Your task to perform on an android device: change notification settings in the gmail app Image 0: 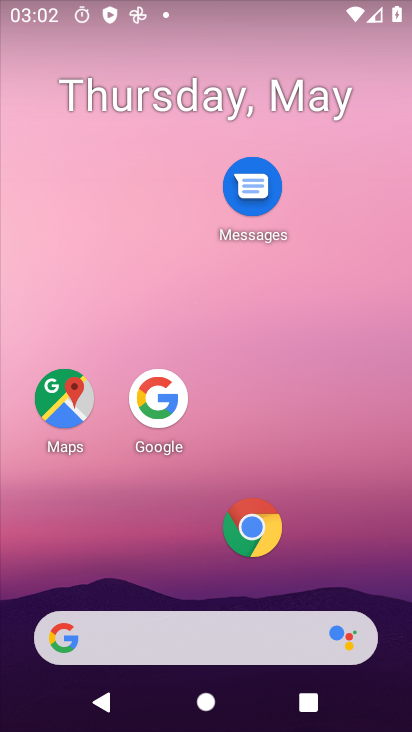
Step 0: drag from (178, 579) to (222, 202)
Your task to perform on an android device: change notification settings in the gmail app Image 1: 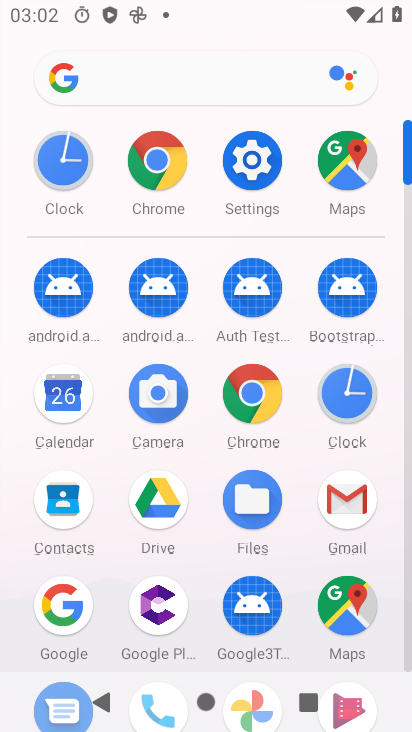
Step 1: click (341, 479)
Your task to perform on an android device: change notification settings in the gmail app Image 2: 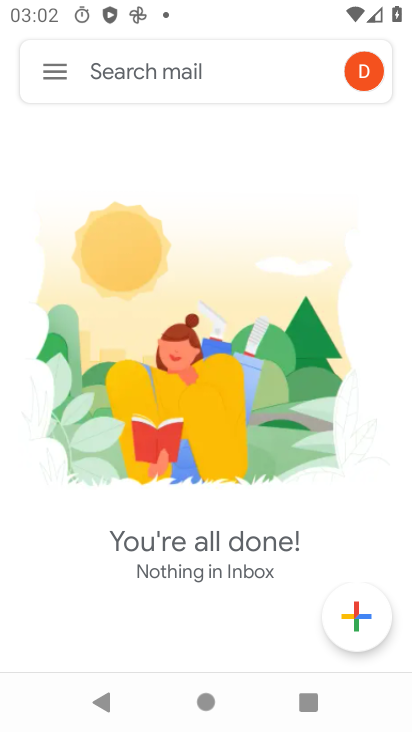
Step 2: drag from (233, 618) to (267, 359)
Your task to perform on an android device: change notification settings in the gmail app Image 3: 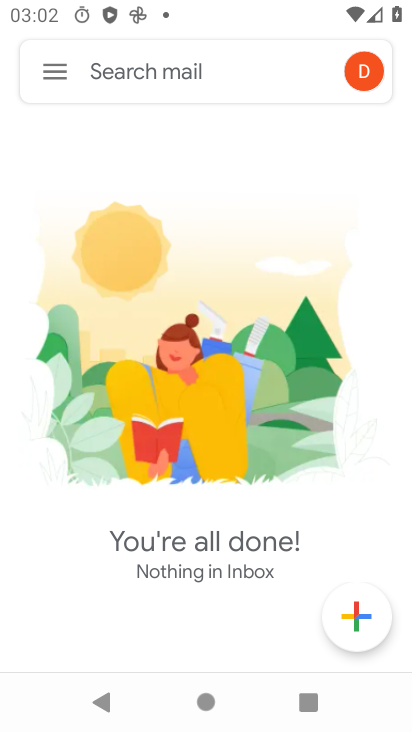
Step 3: drag from (234, 624) to (271, 196)
Your task to perform on an android device: change notification settings in the gmail app Image 4: 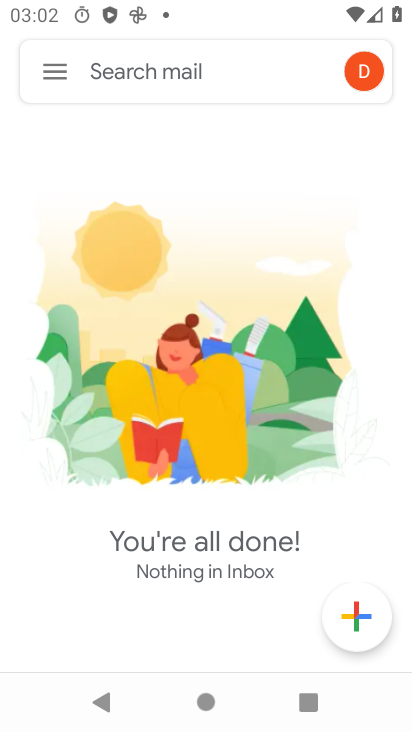
Step 4: click (64, 85)
Your task to perform on an android device: change notification settings in the gmail app Image 5: 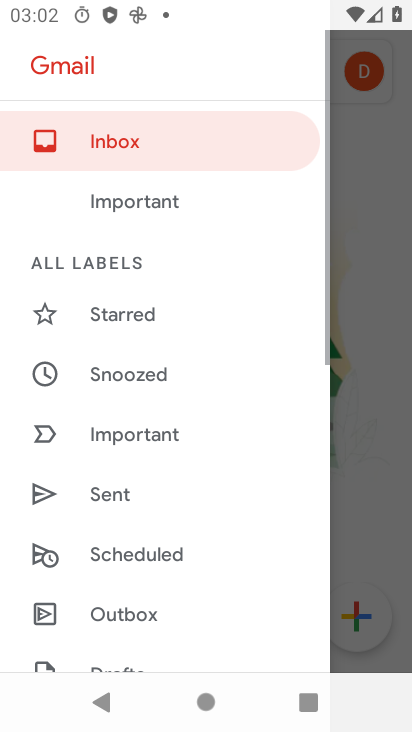
Step 5: drag from (178, 594) to (234, 67)
Your task to perform on an android device: change notification settings in the gmail app Image 6: 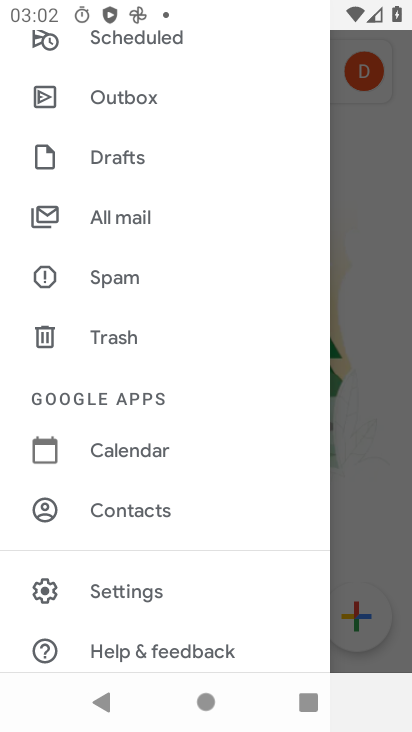
Step 6: click (132, 593)
Your task to perform on an android device: change notification settings in the gmail app Image 7: 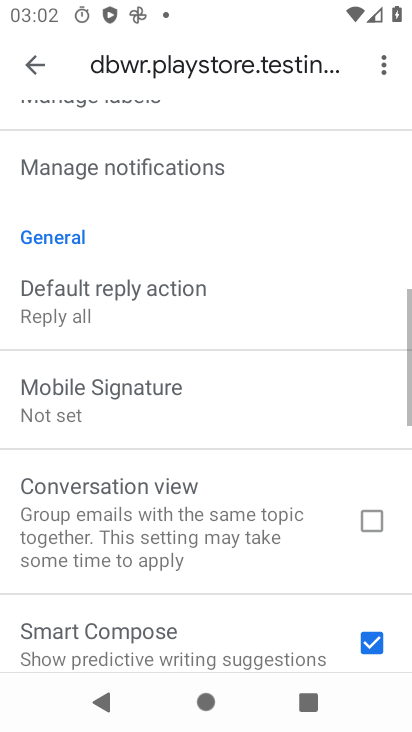
Step 7: drag from (187, 492) to (227, 159)
Your task to perform on an android device: change notification settings in the gmail app Image 8: 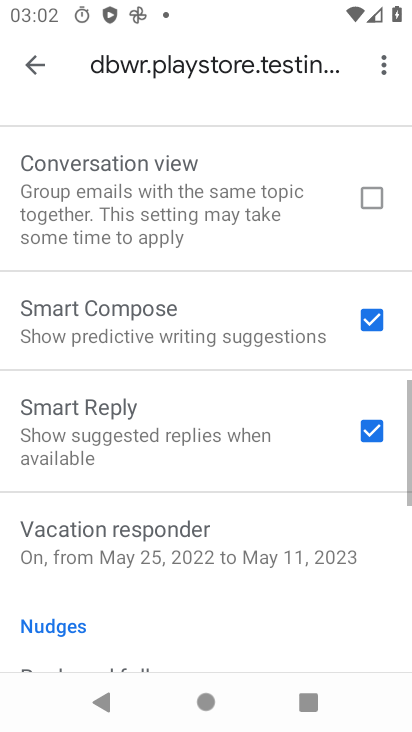
Step 8: drag from (189, 219) to (257, 597)
Your task to perform on an android device: change notification settings in the gmail app Image 9: 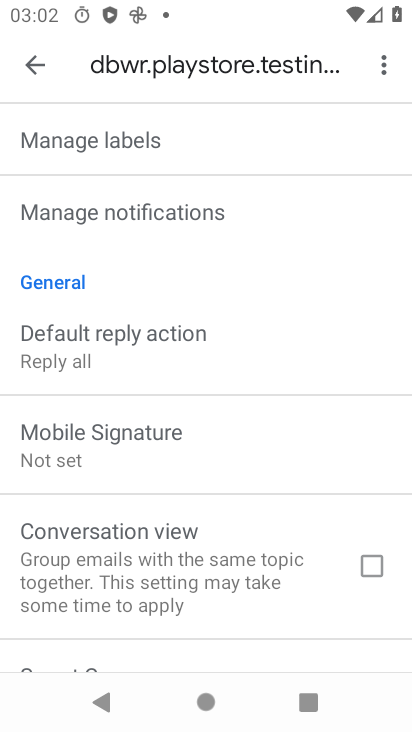
Step 9: click (134, 206)
Your task to perform on an android device: change notification settings in the gmail app Image 10: 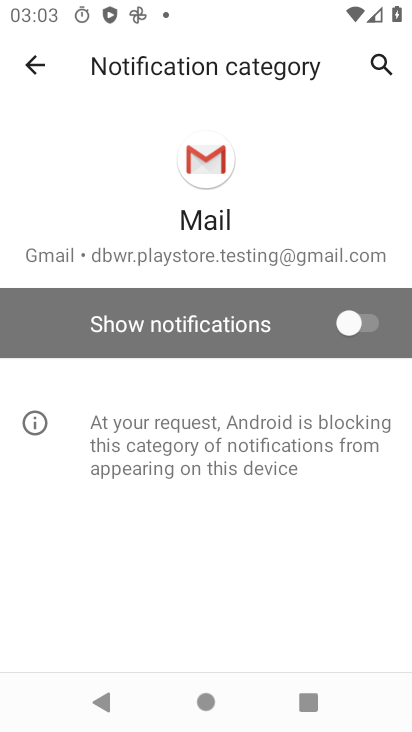
Step 10: click (288, 326)
Your task to perform on an android device: change notification settings in the gmail app Image 11: 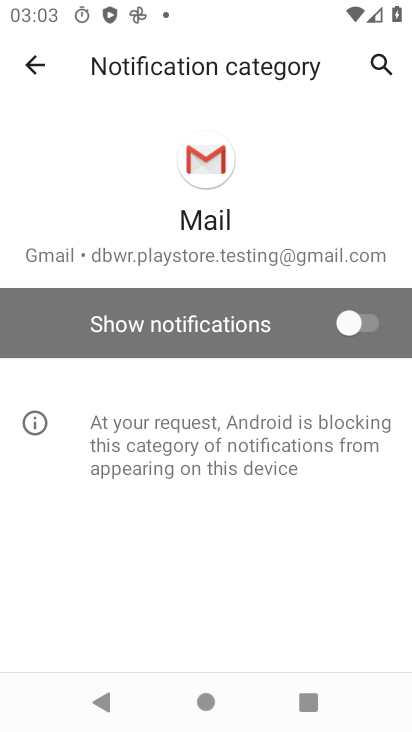
Step 11: task complete